Your task to perform on an android device: turn on notifications settings in the gmail app Image 0: 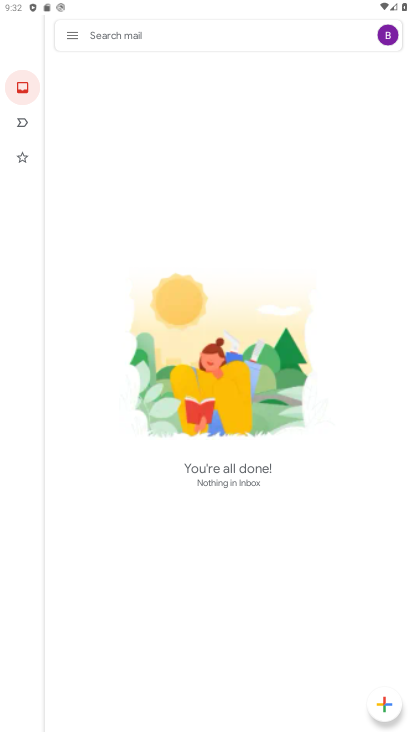
Step 0: press home button
Your task to perform on an android device: turn on notifications settings in the gmail app Image 1: 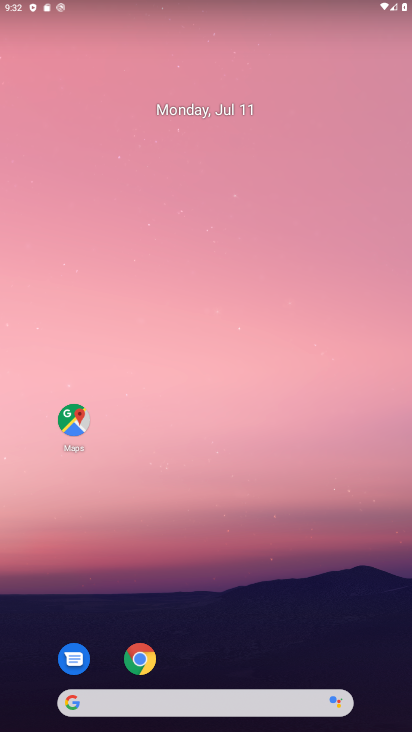
Step 1: drag from (214, 616) to (193, 14)
Your task to perform on an android device: turn on notifications settings in the gmail app Image 2: 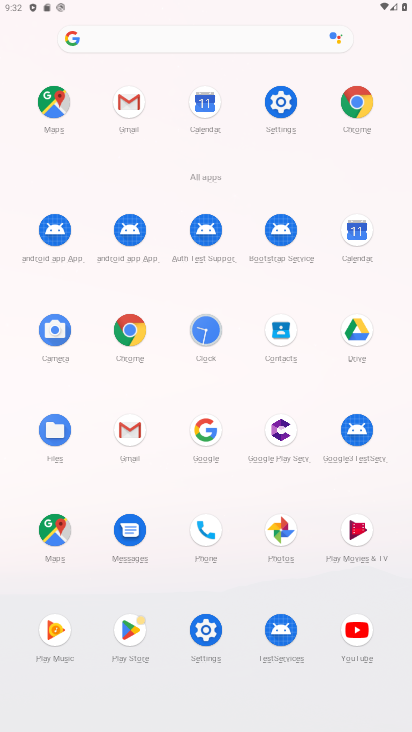
Step 2: click (273, 117)
Your task to perform on an android device: turn on notifications settings in the gmail app Image 3: 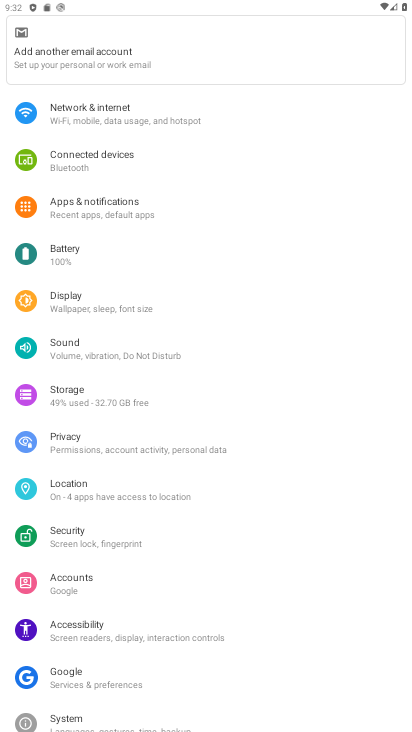
Step 3: click (113, 202)
Your task to perform on an android device: turn on notifications settings in the gmail app Image 4: 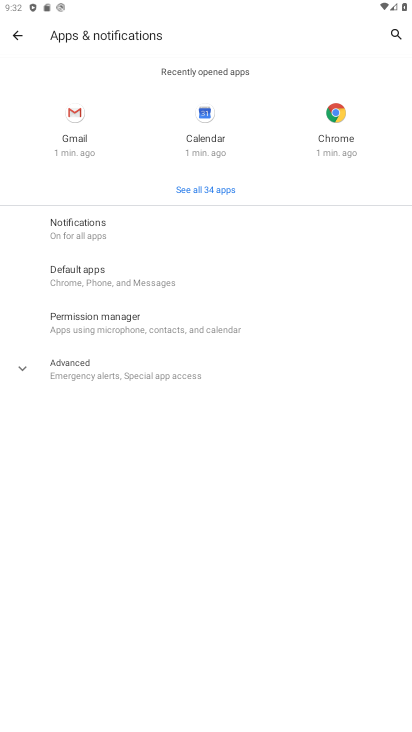
Step 4: click (84, 218)
Your task to perform on an android device: turn on notifications settings in the gmail app Image 5: 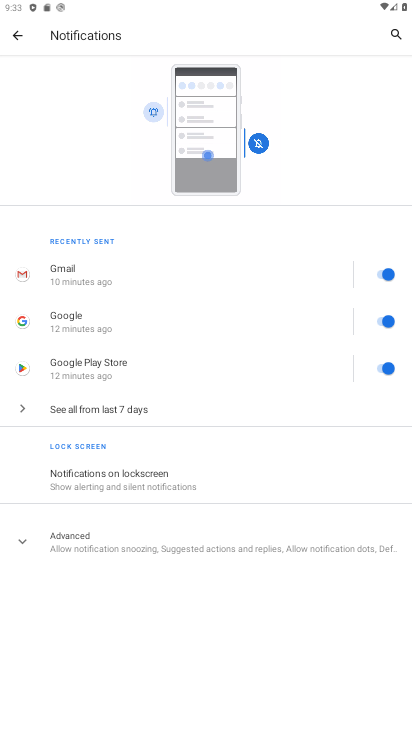
Step 5: click (126, 484)
Your task to perform on an android device: turn on notifications settings in the gmail app Image 6: 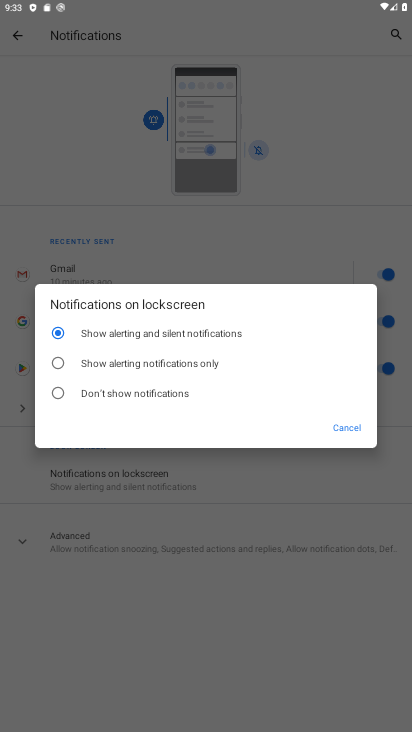
Step 6: task complete